Your task to perform on an android device: Show me productivity apps on the Play Store Image 0: 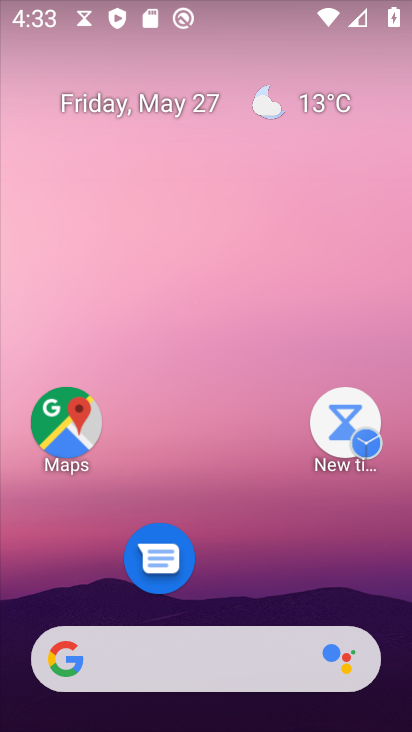
Step 0: drag from (311, 673) to (315, 188)
Your task to perform on an android device: Show me productivity apps on the Play Store Image 1: 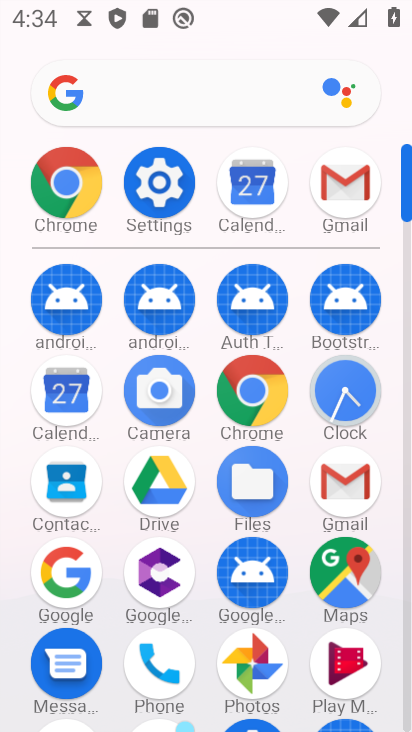
Step 1: drag from (183, 501) to (182, 228)
Your task to perform on an android device: Show me productivity apps on the Play Store Image 2: 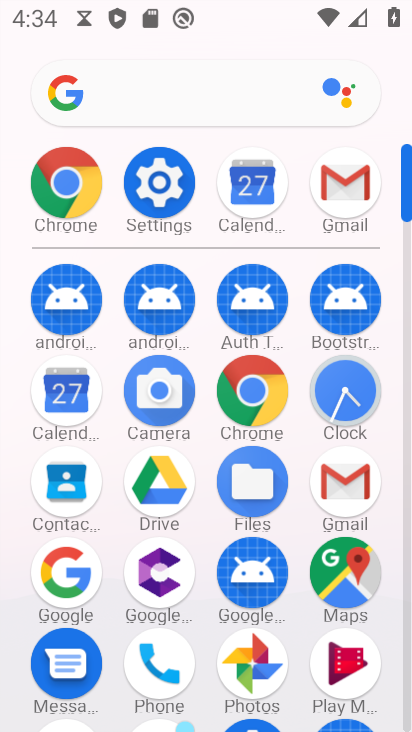
Step 2: drag from (179, 475) to (133, 280)
Your task to perform on an android device: Show me productivity apps on the Play Store Image 3: 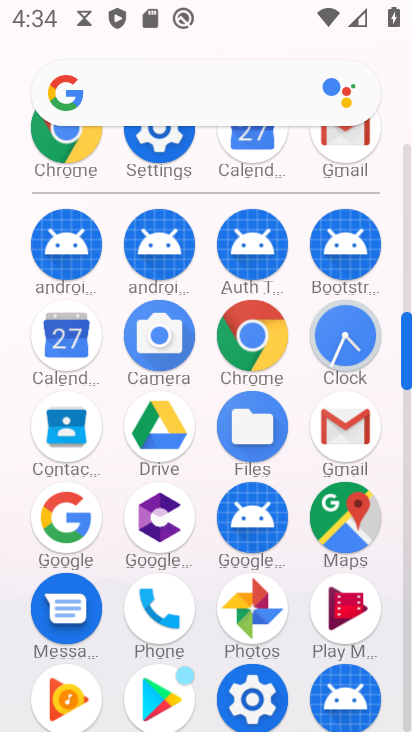
Step 3: drag from (180, 210) to (183, 168)
Your task to perform on an android device: Show me productivity apps on the Play Store Image 4: 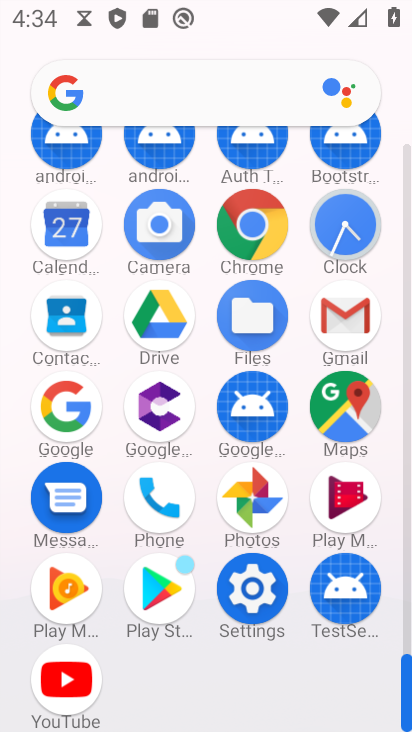
Step 4: click (164, 576)
Your task to perform on an android device: Show me productivity apps on the Play Store Image 5: 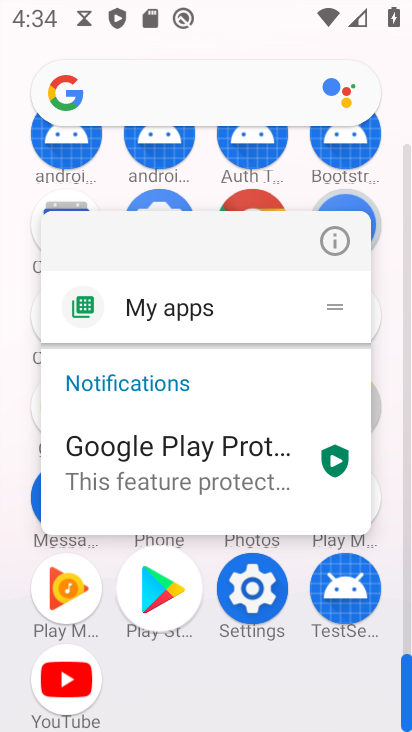
Step 5: click (167, 581)
Your task to perform on an android device: Show me productivity apps on the Play Store Image 6: 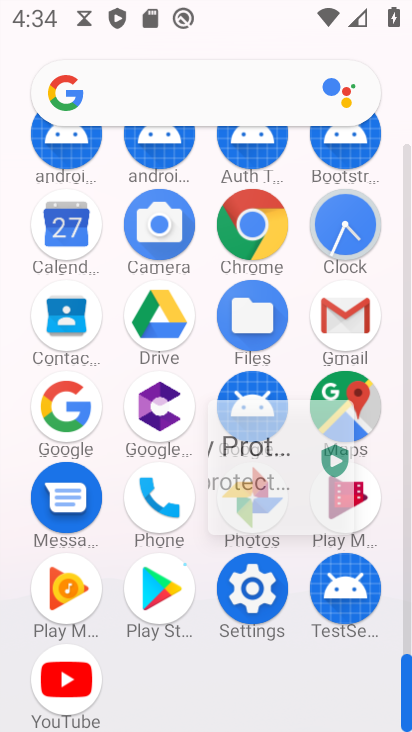
Step 6: click (167, 581)
Your task to perform on an android device: Show me productivity apps on the Play Store Image 7: 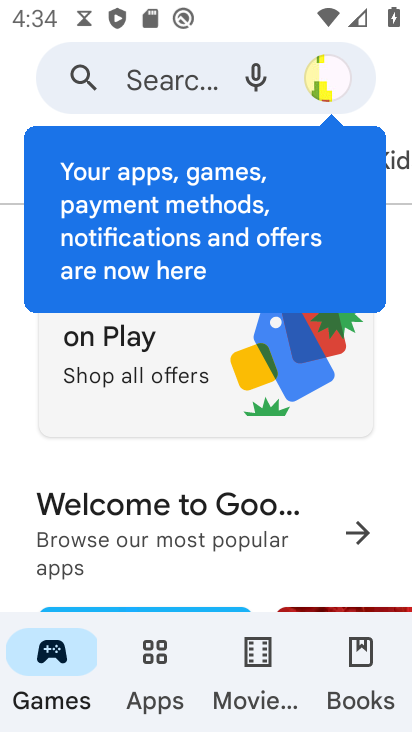
Step 7: press back button
Your task to perform on an android device: Show me productivity apps on the Play Store Image 8: 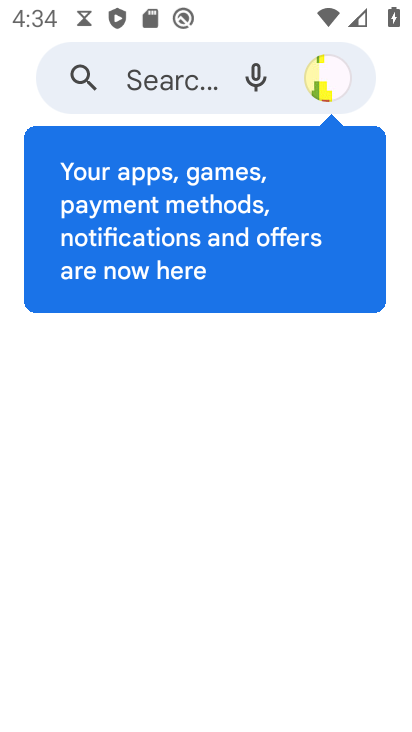
Step 8: press back button
Your task to perform on an android device: Show me productivity apps on the Play Store Image 9: 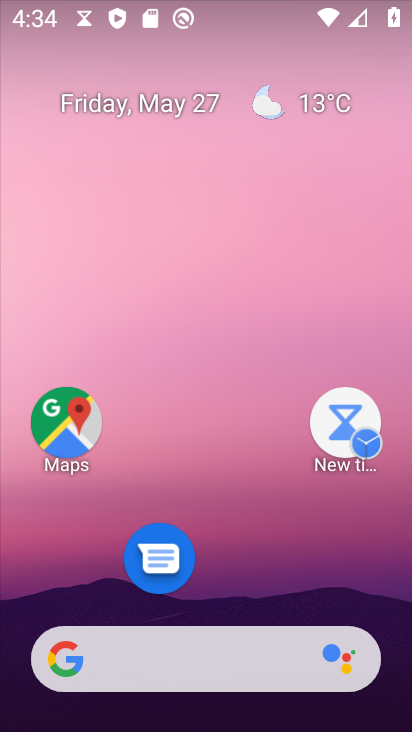
Step 9: drag from (246, 339) to (246, 150)
Your task to perform on an android device: Show me productivity apps on the Play Store Image 10: 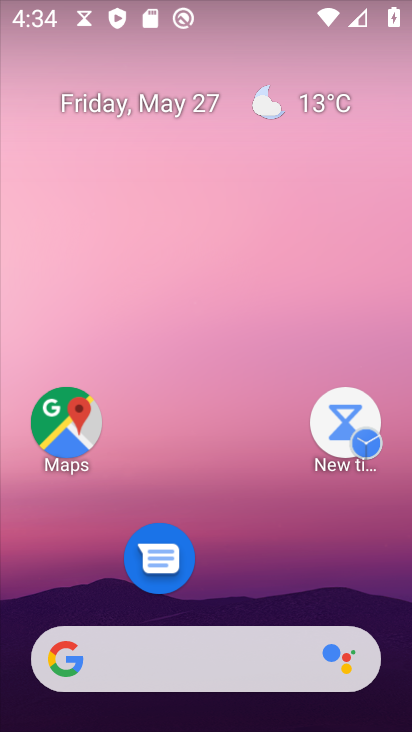
Step 10: drag from (274, 619) to (217, 257)
Your task to perform on an android device: Show me productivity apps on the Play Store Image 11: 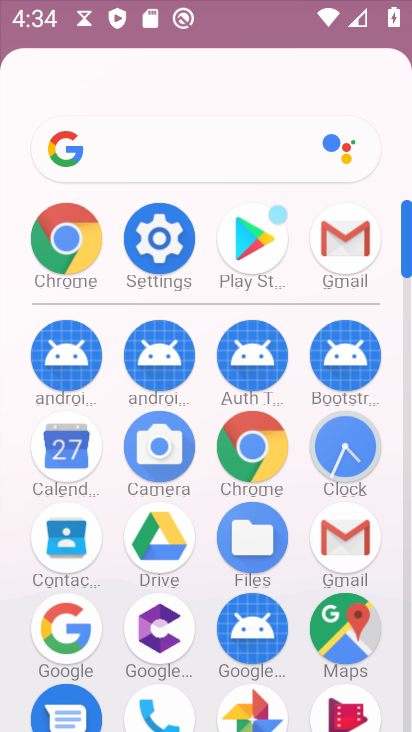
Step 11: drag from (222, 635) to (175, 161)
Your task to perform on an android device: Show me productivity apps on the Play Store Image 12: 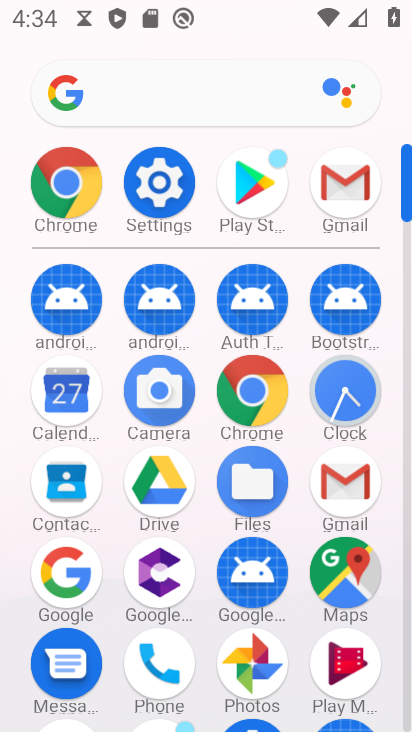
Step 12: drag from (197, 504) to (217, 119)
Your task to perform on an android device: Show me productivity apps on the Play Store Image 13: 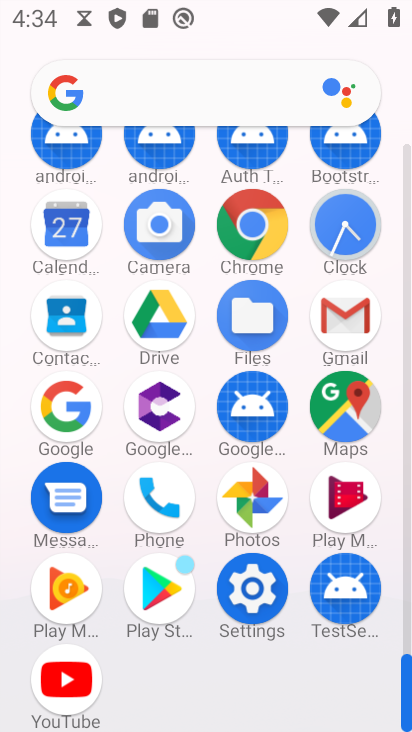
Step 13: drag from (229, 597) to (176, 200)
Your task to perform on an android device: Show me productivity apps on the Play Store Image 14: 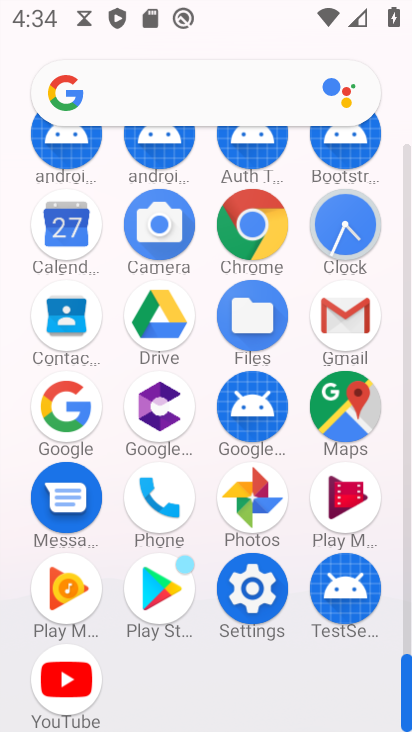
Step 14: click (162, 592)
Your task to perform on an android device: Show me productivity apps on the Play Store Image 15: 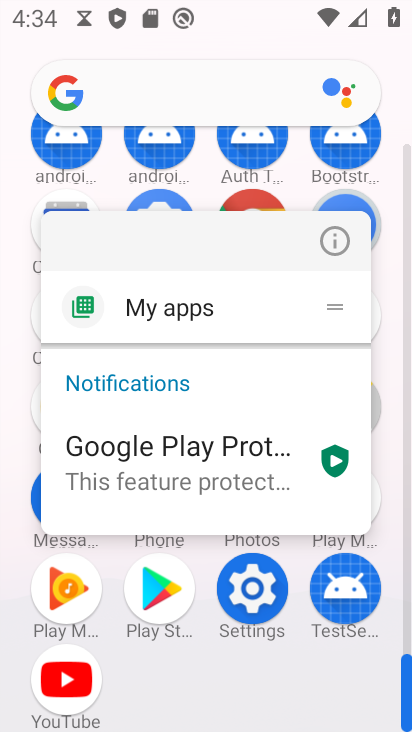
Step 15: click (171, 582)
Your task to perform on an android device: Show me productivity apps on the Play Store Image 16: 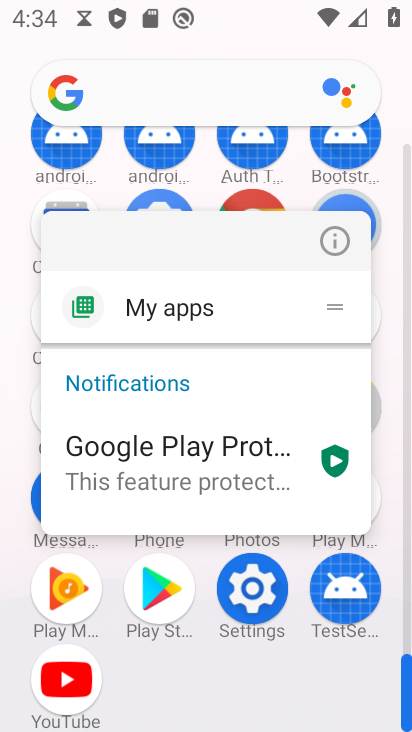
Step 16: click (171, 582)
Your task to perform on an android device: Show me productivity apps on the Play Store Image 17: 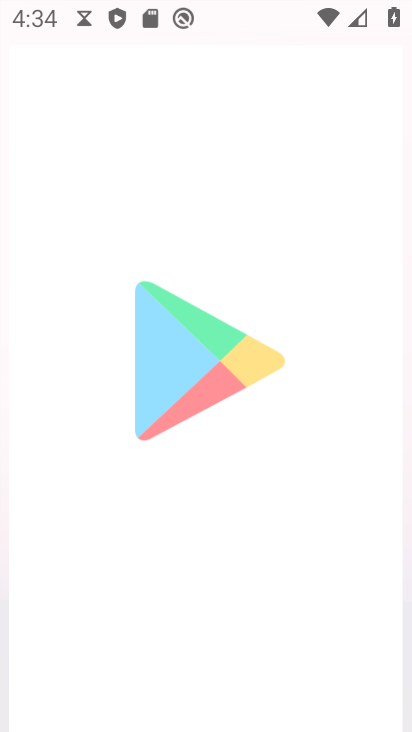
Step 17: click (171, 582)
Your task to perform on an android device: Show me productivity apps on the Play Store Image 18: 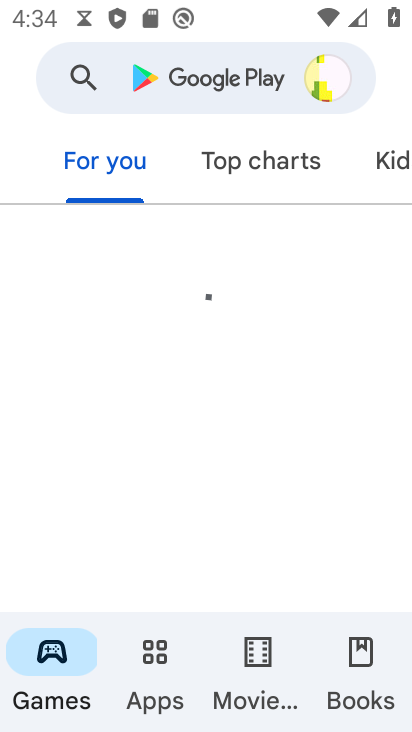
Step 18: click (164, 590)
Your task to perform on an android device: Show me productivity apps on the Play Store Image 19: 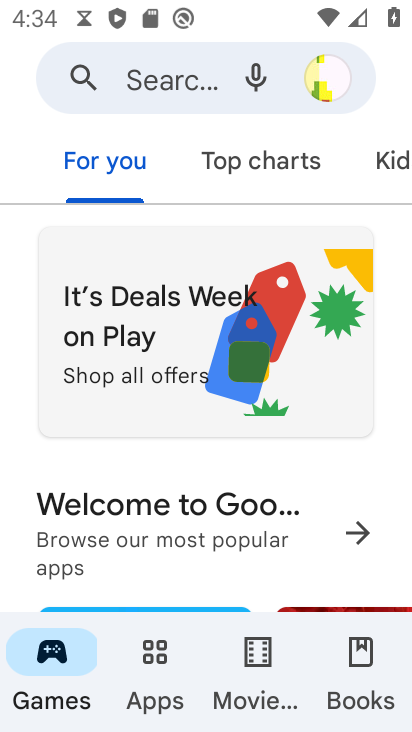
Step 19: click (149, 74)
Your task to perform on an android device: Show me productivity apps on the Play Store Image 20: 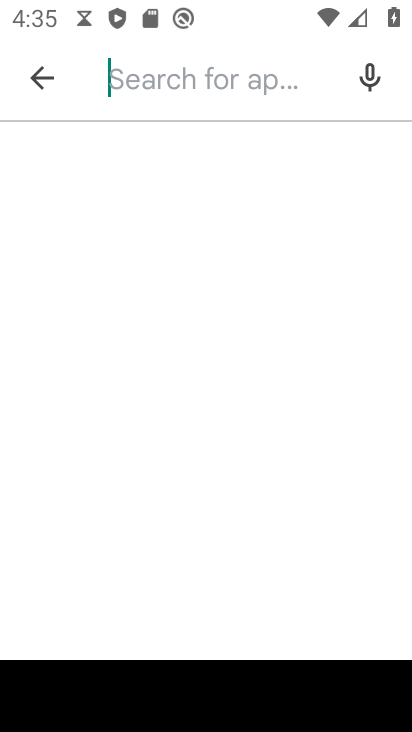
Step 20: type "productivity apps"
Your task to perform on an android device: Show me productivity apps on the Play Store Image 21: 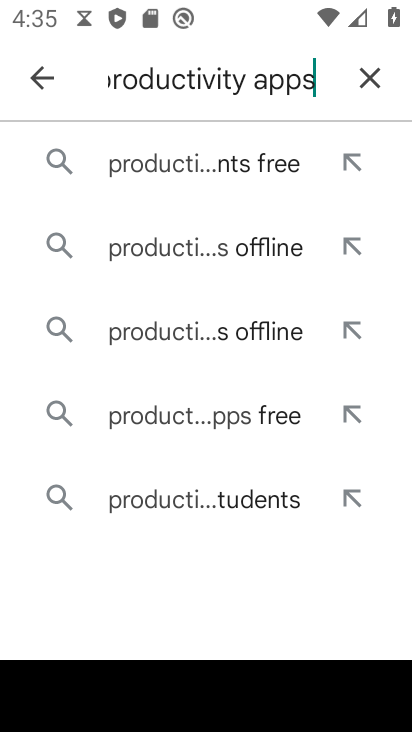
Step 21: click (222, 147)
Your task to perform on an android device: Show me productivity apps on the Play Store Image 22: 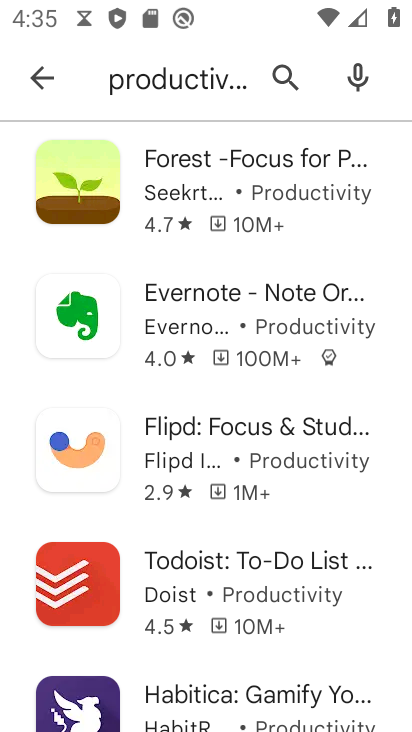
Step 22: task complete